Your task to perform on an android device: Clear the shopping cart on target.com. Add "rayovac triple a" to the cart on target.com, then select checkout. Image 0: 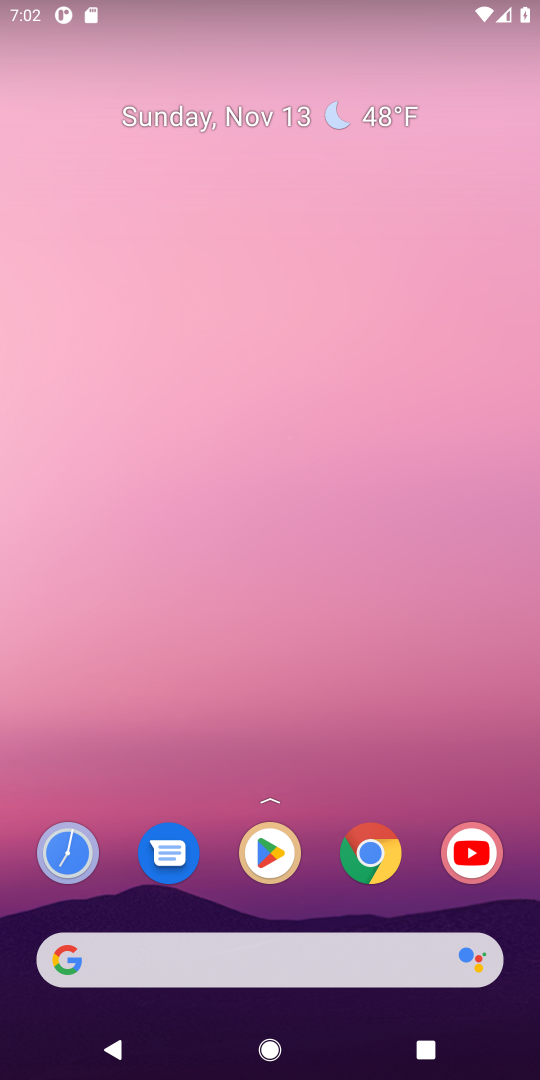
Step 0: press home button
Your task to perform on an android device: Clear the shopping cart on target.com. Add "rayovac triple a" to the cart on target.com, then select checkout. Image 1: 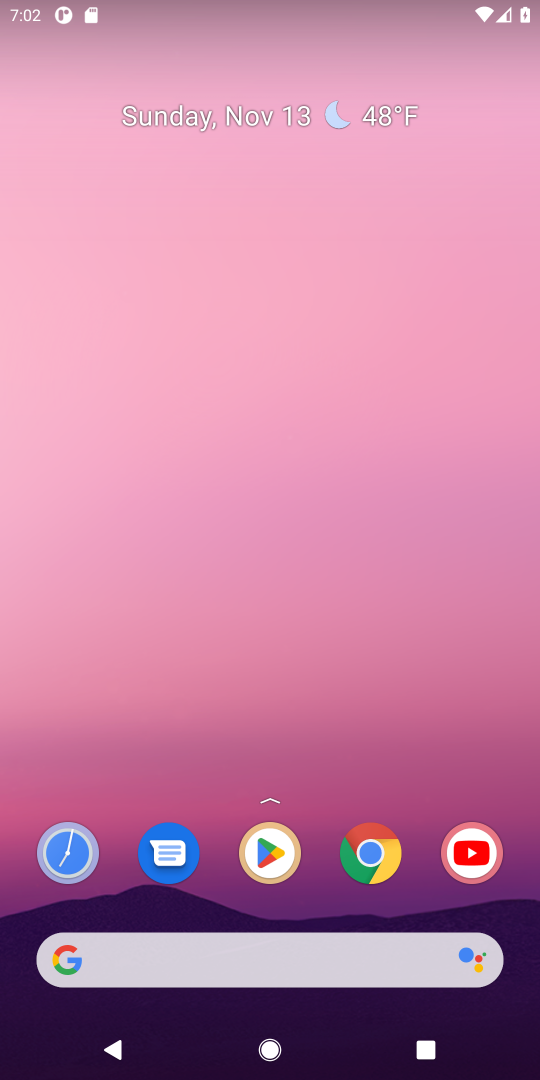
Step 1: click (103, 963)
Your task to perform on an android device: Clear the shopping cart on target.com. Add "rayovac triple a" to the cart on target.com, then select checkout. Image 2: 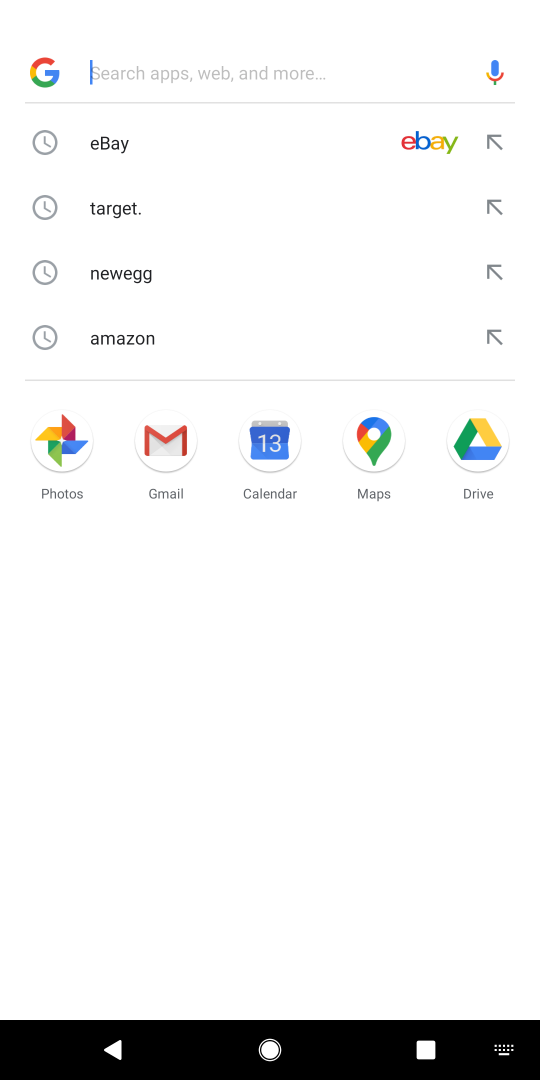
Step 2: type "target.com"
Your task to perform on an android device: Clear the shopping cart on target.com. Add "rayovac triple a" to the cart on target.com, then select checkout. Image 3: 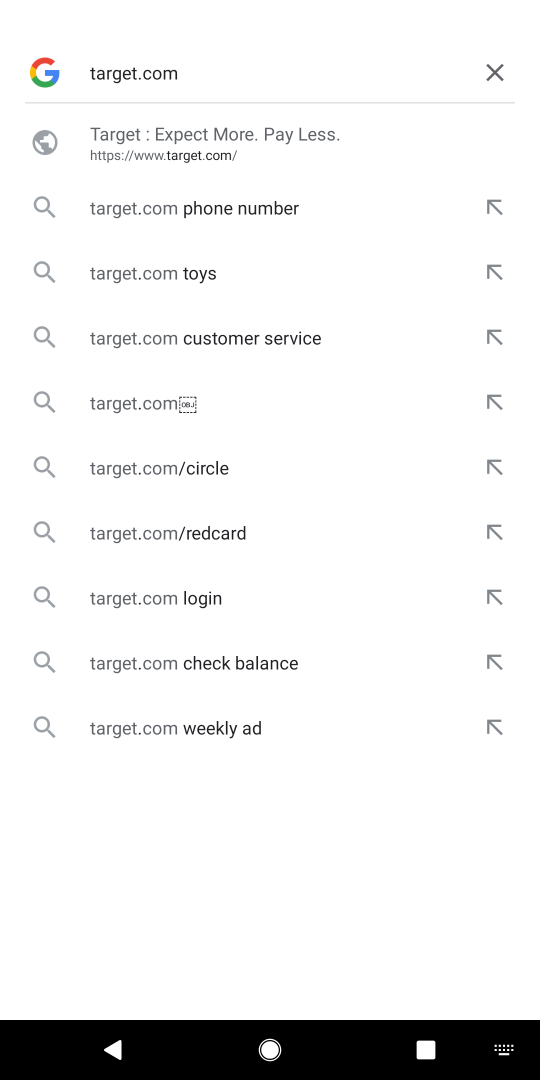
Step 3: press enter
Your task to perform on an android device: Clear the shopping cart on target.com. Add "rayovac triple a" to the cart on target.com, then select checkout. Image 4: 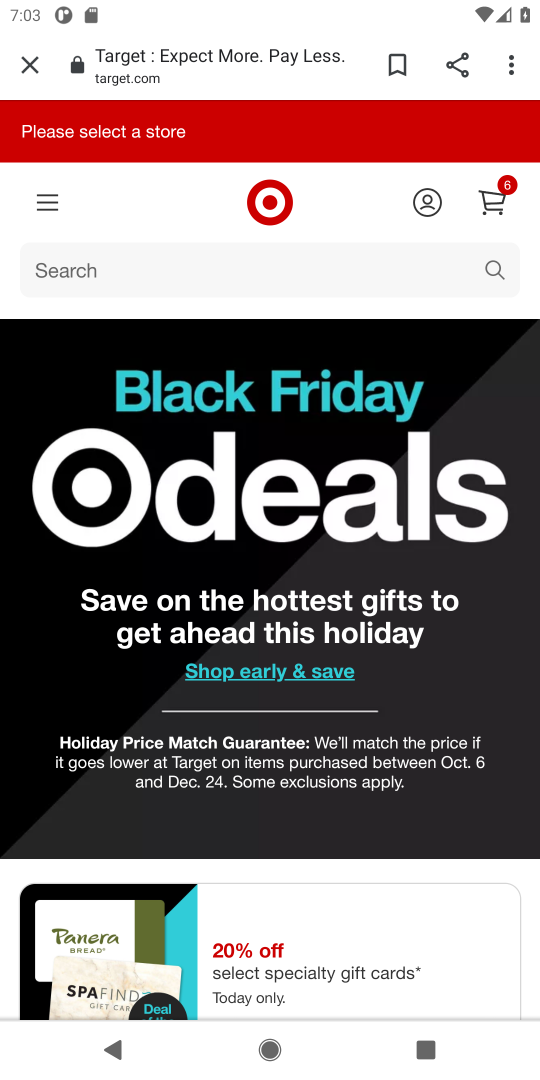
Step 4: click (498, 198)
Your task to perform on an android device: Clear the shopping cart on target.com. Add "rayovac triple a" to the cart on target.com, then select checkout. Image 5: 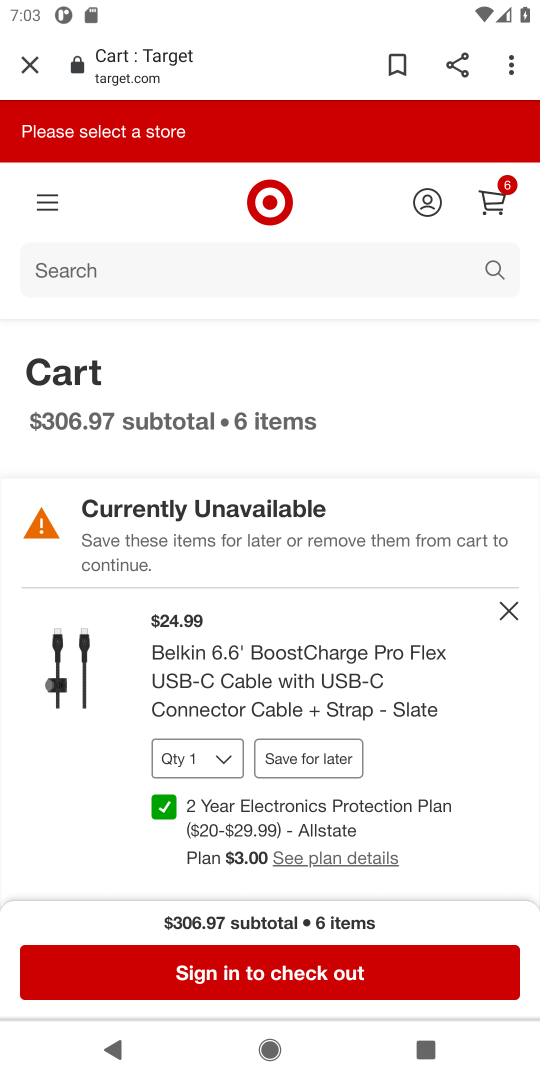
Step 5: click (506, 618)
Your task to perform on an android device: Clear the shopping cart on target.com. Add "rayovac triple a" to the cart on target.com, then select checkout. Image 6: 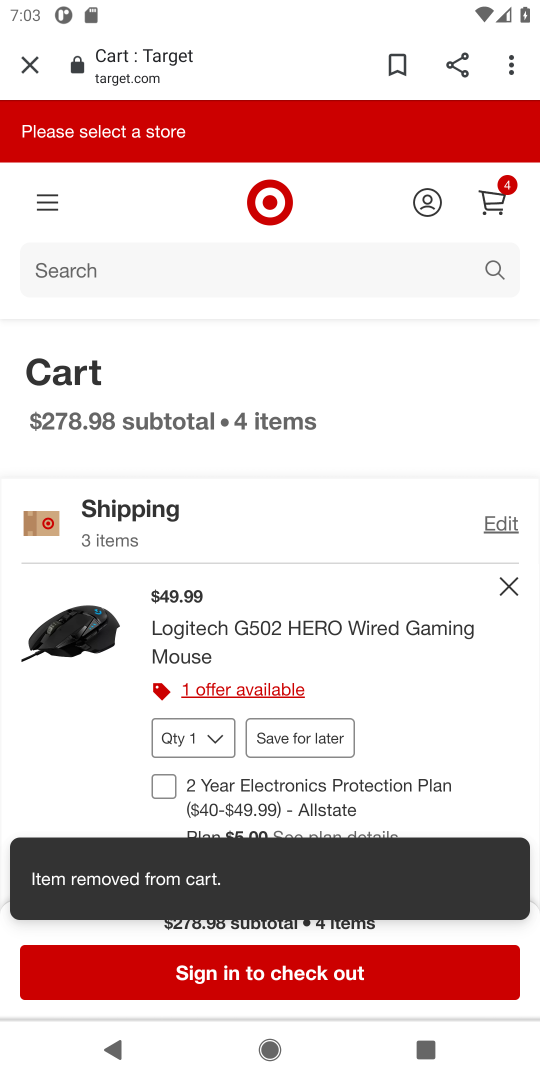
Step 6: click (509, 588)
Your task to perform on an android device: Clear the shopping cart on target.com. Add "rayovac triple a" to the cart on target.com, then select checkout. Image 7: 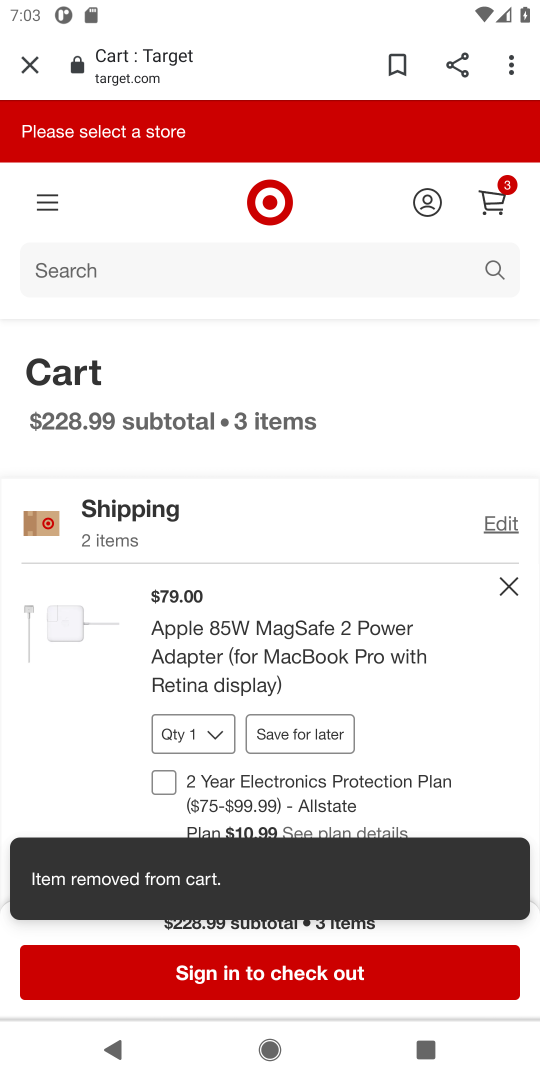
Step 7: click (498, 589)
Your task to perform on an android device: Clear the shopping cart on target.com. Add "rayovac triple a" to the cart on target.com, then select checkout. Image 8: 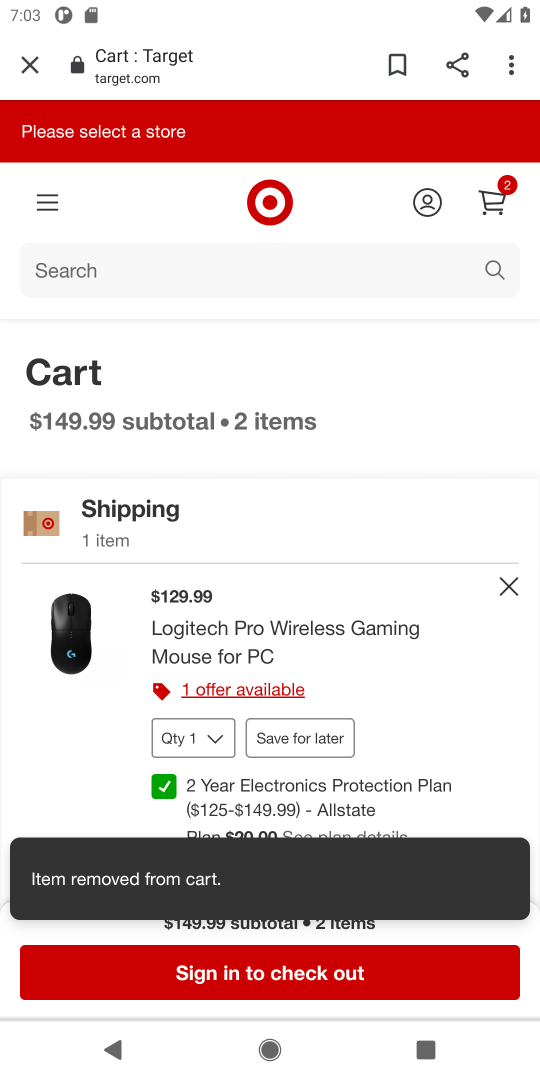
Step 8: click (503, 585)
Your task to perform on an android device: Clear the shopping cart on target.com. Add "rayovac triple a" to the cart on target.com, then select checkout. Image 9: 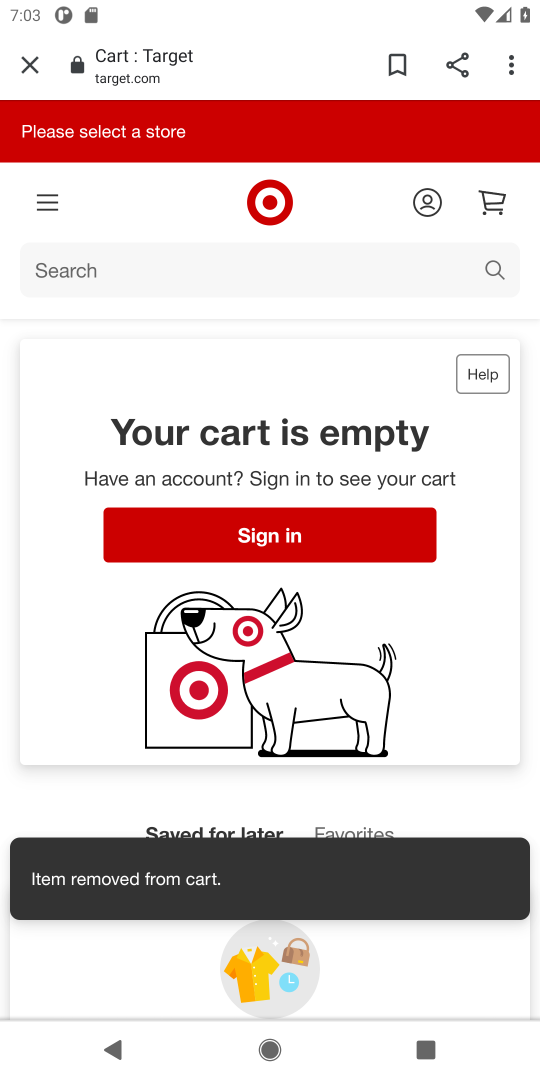
Step 9: click (79, 270)
Your task to perform on an android device: Clear the shopping cart on target.com. Add "rayovac triple a" to the cart on target.com, then select checkout. Image 10: 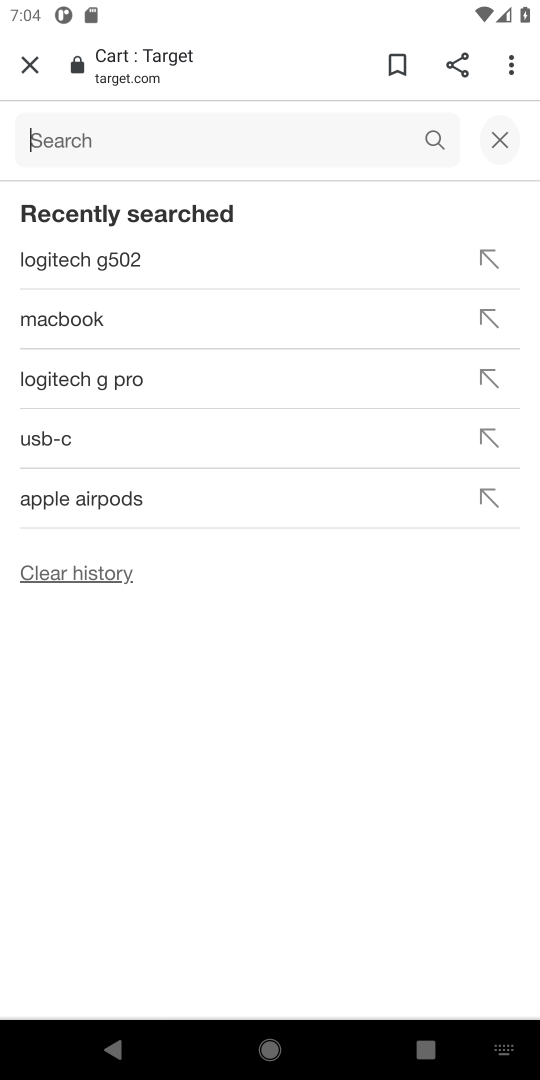
Step 10: type "rayovac triple a"
Your task to perform on an android device: Clear the shopping cart on target.com. Add "rayovac triple a" to the cart on target.com, then select checkout. Image 11: 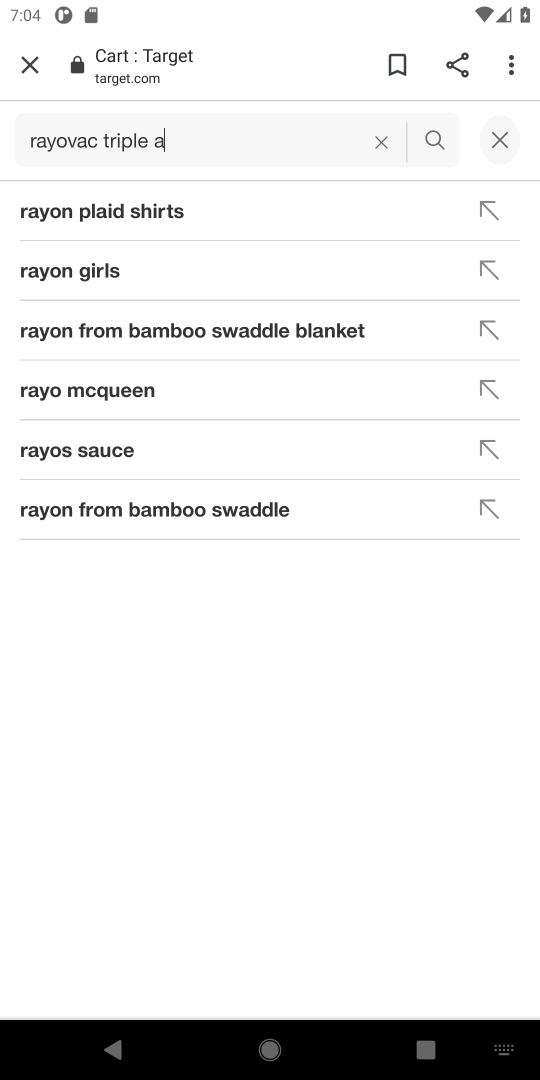
Step 11: press enter
Your task to perform on an android device: Clear the shopping cart on target.com. Add "rayovac triple a" to the cart on target.com, then select checkout. Image 12: 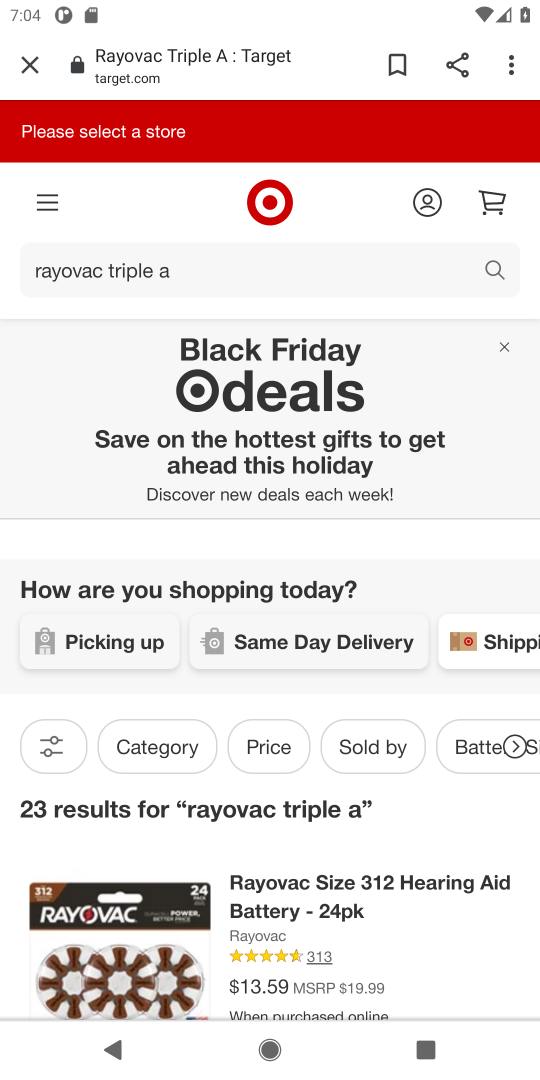
Step 12: task complete